Your task to perform on an android device: Open Google Chrome Image 0: 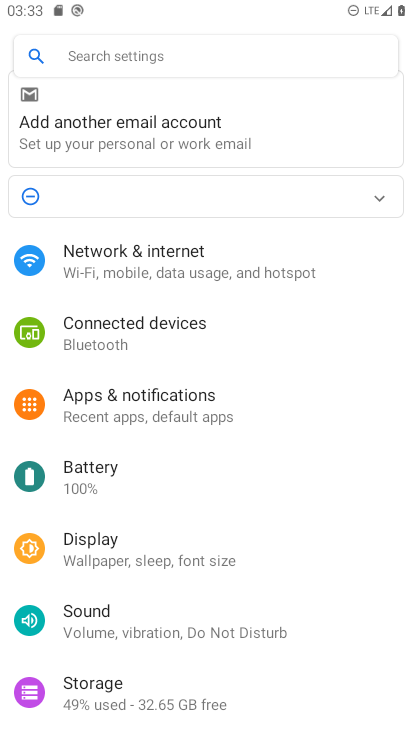
Step 0: press home button
Your task to perform on an android device: Open Google Chrome Image 1: 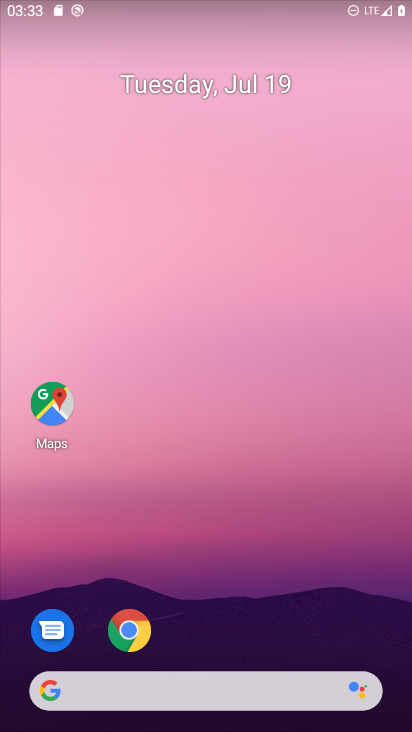
Step 1: click (130, 628)
Your task to perform on an android device: Open Google Chrome Image 2: 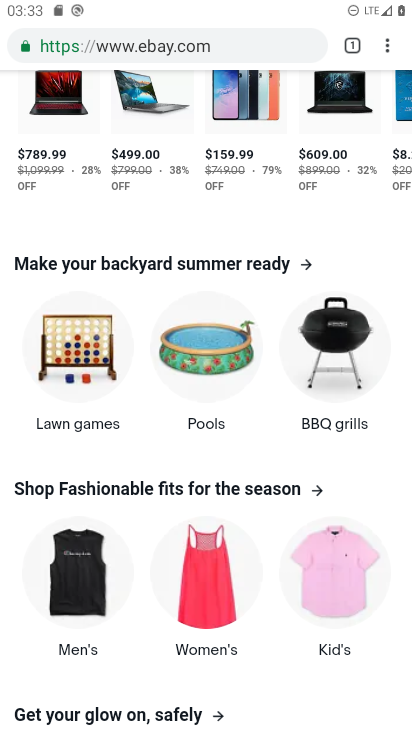
Step 2: task complete